Your task to perform on an android device: remove spam from my inbox in the gmail app Image 0: 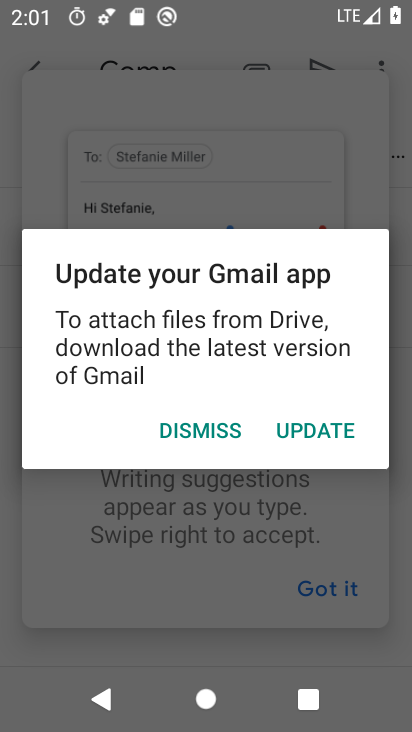
Step 0: press home button
Your task to perform on an android device: remove spam from my inbox in the gmail app Image 1: 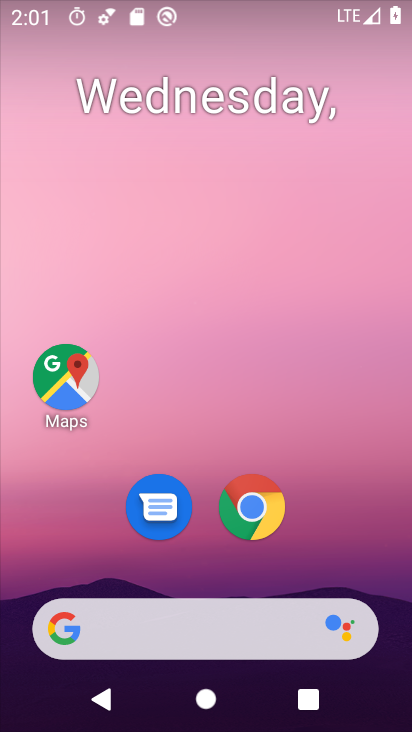
Step 1: drag from (298, 568) to (337, 41)
Your task to perform on an android device: remove spam from my inbox in the gmail app Image 2: 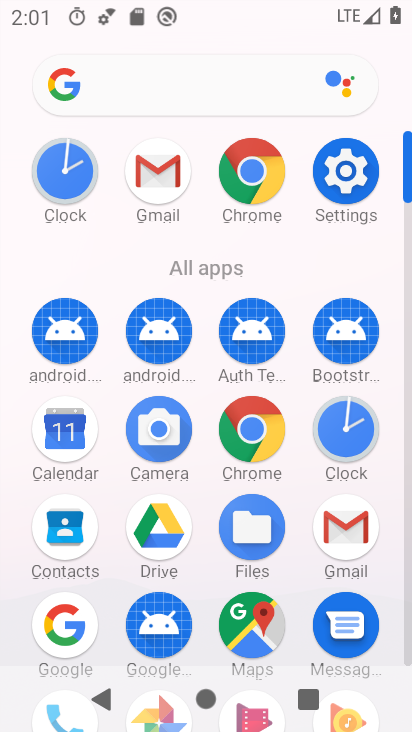
Step 2: click (332, 498)
Your task to perform on an android device: remove spam from my inbox in the gmail app Image 3: 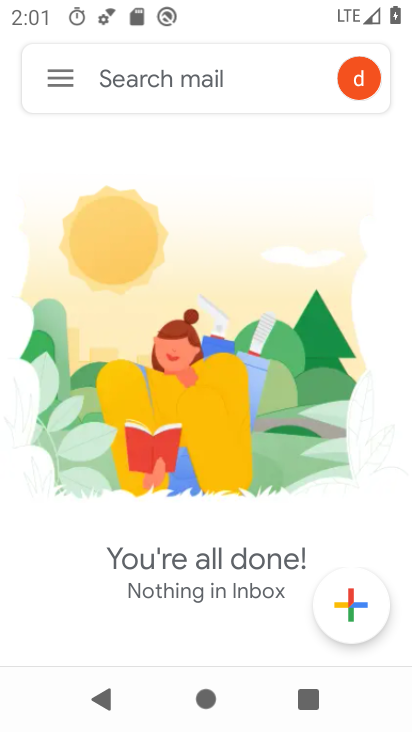
Step 3: click (51, 67)
Your task to perform on an android device: remove spam from my inbox in the gmail app Image 4: 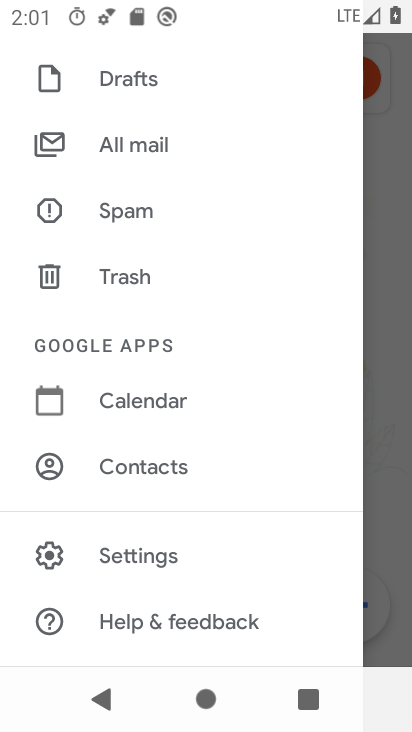
Step 4: click (150, 198)
Your task to perform on an android device: remove spam from my inbox in the gmail app Image 5: 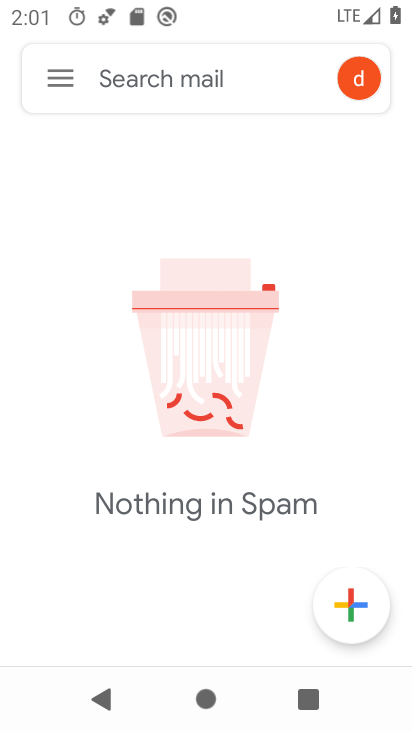
Step 5: task complete